Your task to perform on an android device: Open the map Image 0: 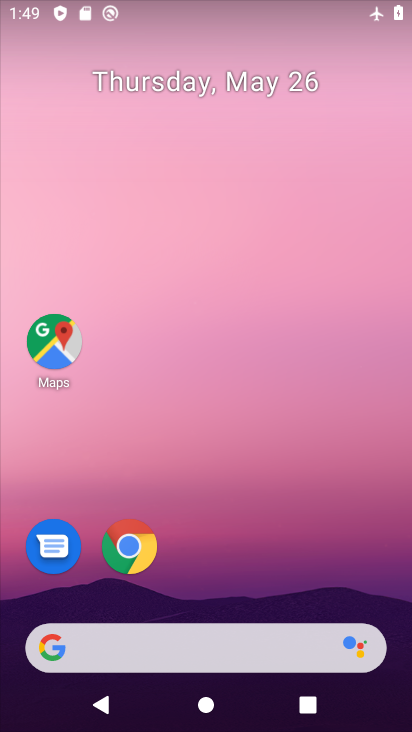
Step 0: drag from (212, 574) to (267, 0)
Your task to perform on an android device: Open the map Image 1: 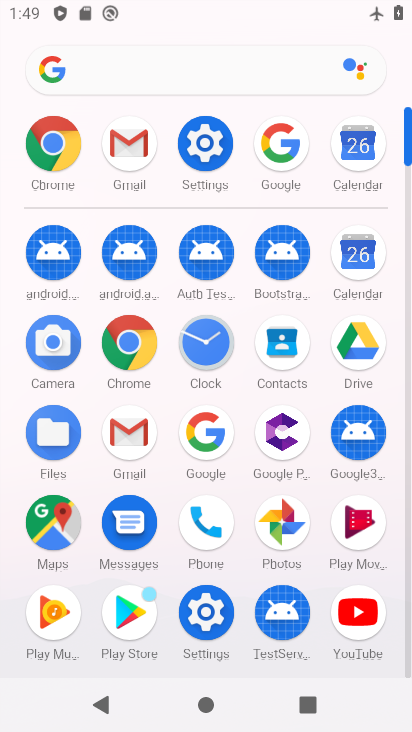
Step 1: click (58, 527)
Your task to perform on an android device: Open the map Image 2: 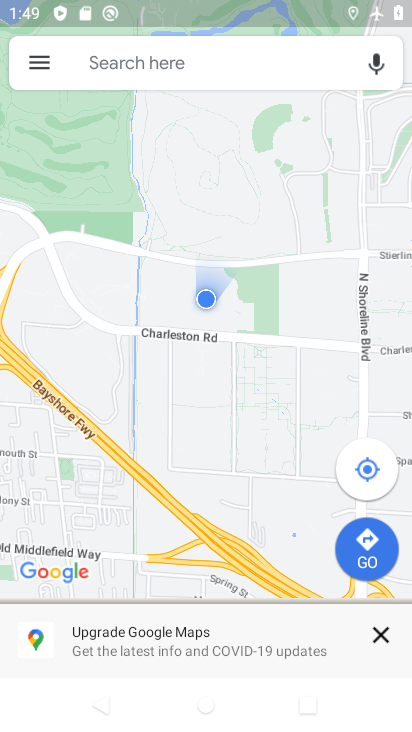
Step 2: task complete